Your task to perform on an android device: Search for sushi restaurants on Maps Image 0: 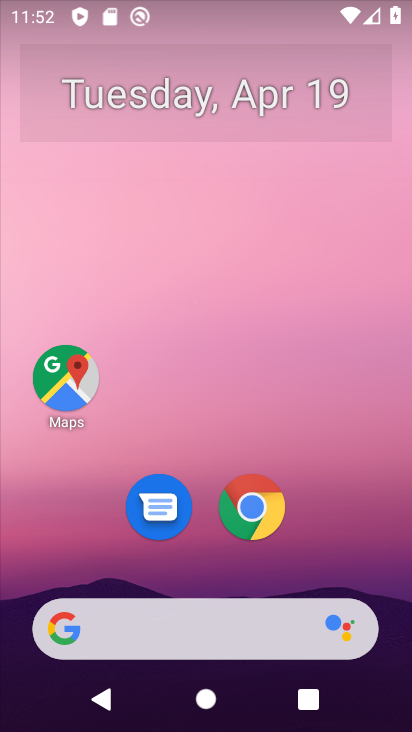
Step 0: drag from (379, 469) to (374, 117)
Your task to perform on an android device: Search for sushi restaurants on Maps Image 1: 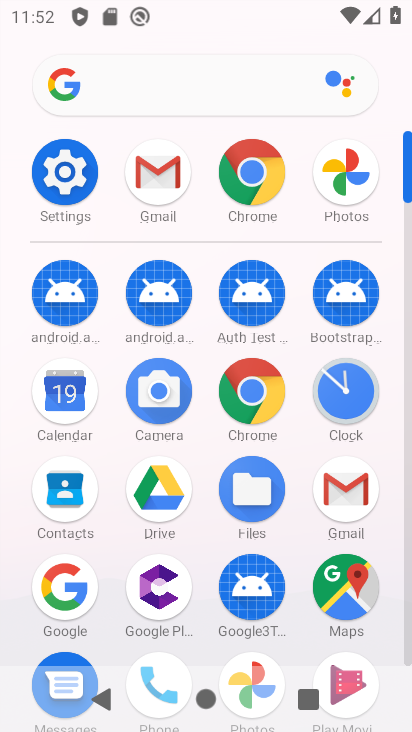
Step 1: click (324, 591)
Your task to perform on an android device: Search for sushi restaurants on Maps Image 2: 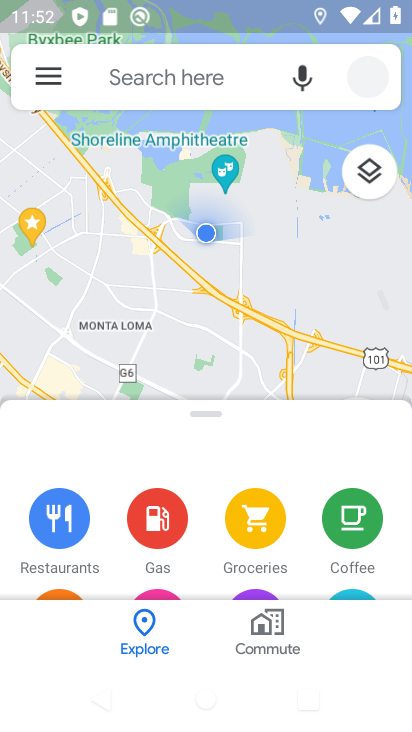
Step 2: click (224, 71)
Your task to perform on an android device: Search for sushi restaurants on Maps Image 3: 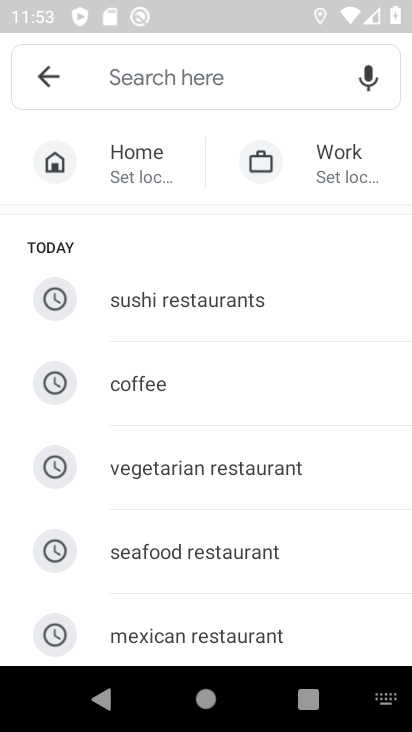
Step 3: click (192, 298)
Your task to perform on an android device: Search for sushi restaurants on Maps Image 4: 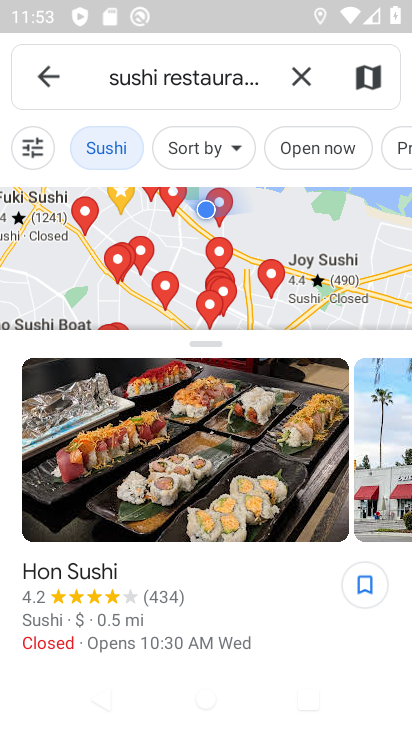
Step 4: task complete